Your task to perform on an android device: turn on showing notifications on the lock screen Image 0: 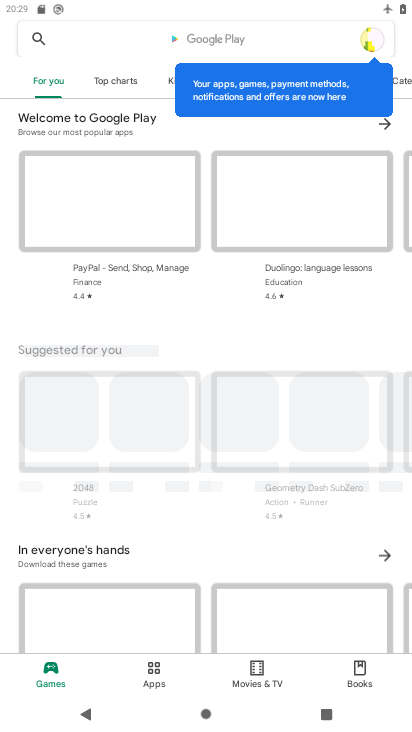
Step 0: press home button
Your task to perform on an android device: turn on showing notifications on the lock screen Image 1: 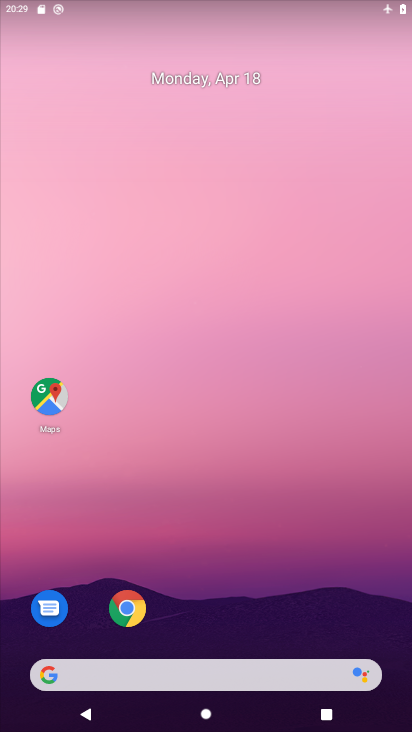
Step 1: drag from (260, 551) to (287, 162)
Your task to perform on an android device: turn on showing notifications on the lock screen Image 2: 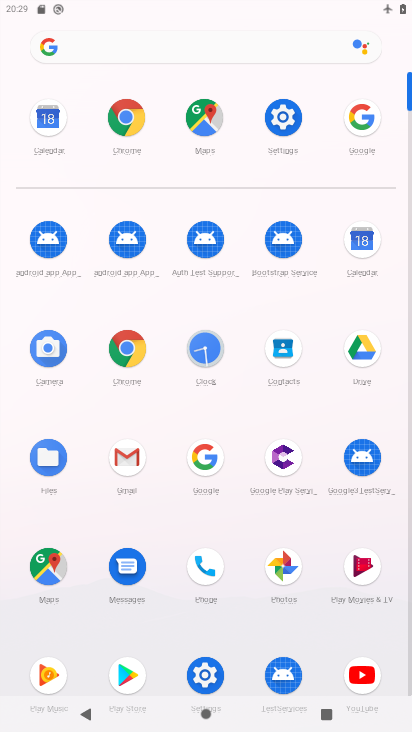
Step 2: click (284, 111)
Your task to perform on an android device: turn on showing notifications on the lock screen Image 3: 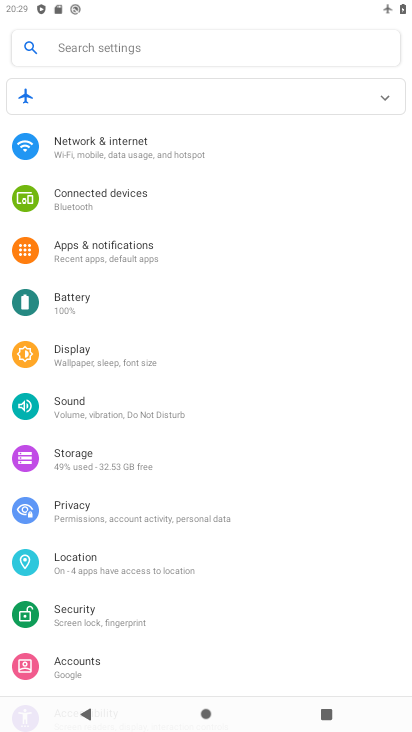
Step 3: click (92, 251)
Your task to perform on an android device: turn on showing notifications on the lock screen Image 4: 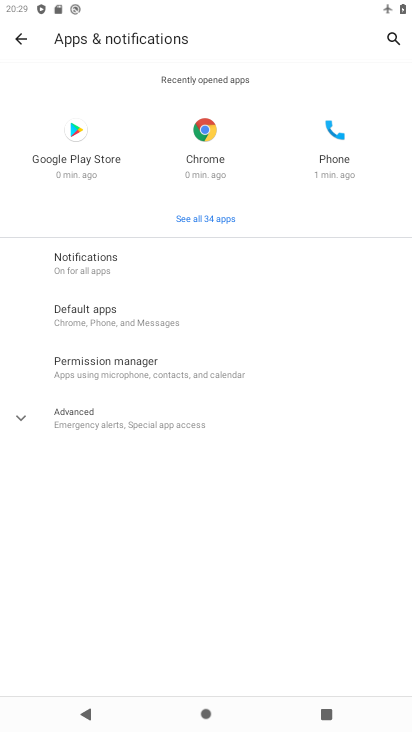
Step 4: click (116, 265)
Your task to perform on an android device: turn on showing notifications on the lock screen Image 5: 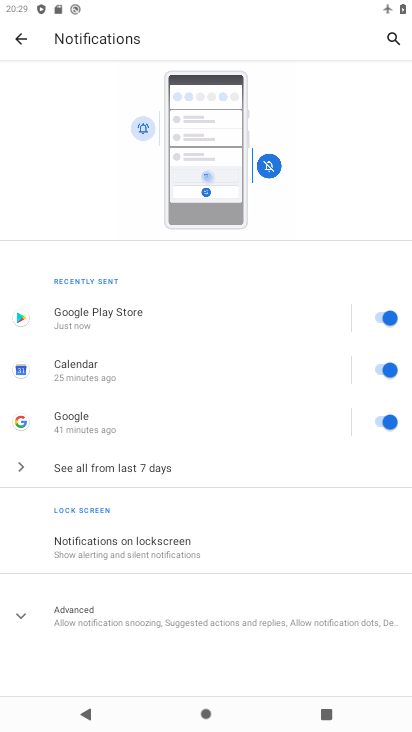
Step 5: click (124, 543)
Your task to perform on an android device: turn on showing notifications on the lock screen Image 6: 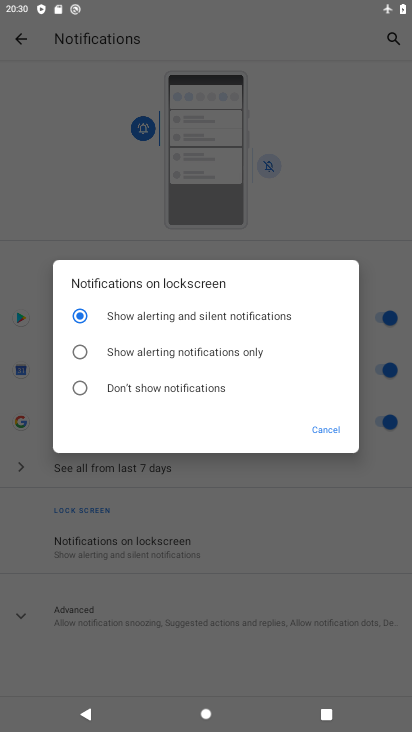
Step 6: task complete